Your task to perform on an android device: Open CNN.com Image 0: 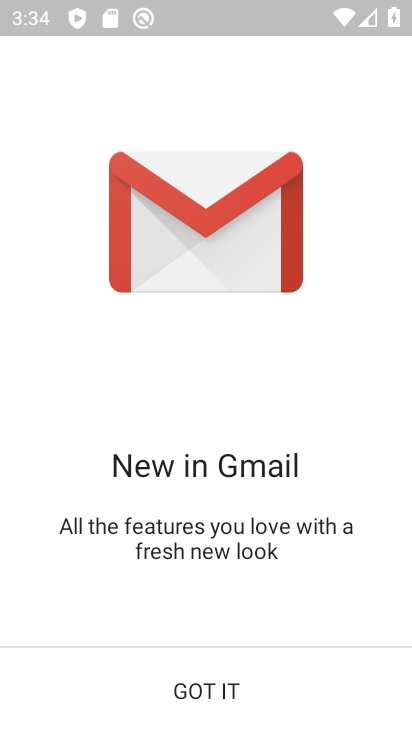
Step 0: press home button
Your task to perform on an android device: Open CNN.com Image 1: 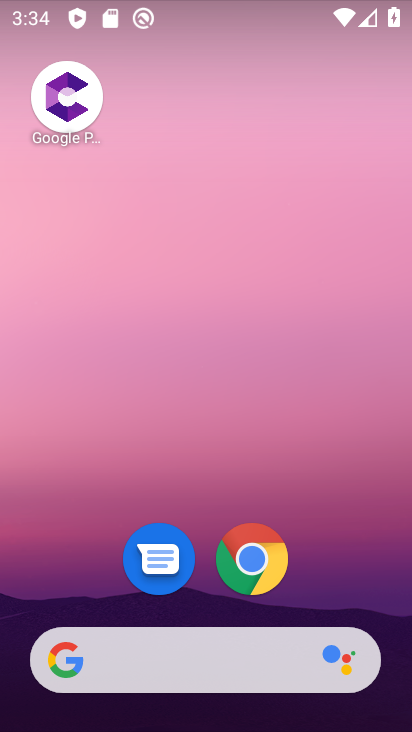
Step 1: click (233, 562)
Your task to perform on an android device: Open CNN.com Image 2: 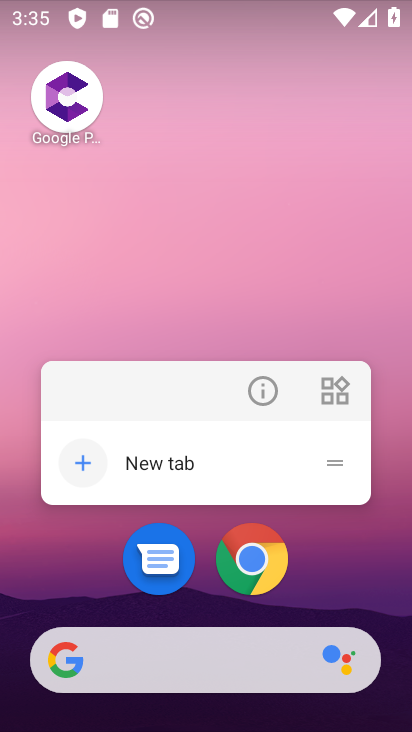
Step 2: drag from (190, 628) to (193, 234)
Your task to perform on an android device: Open CNN.com Image 3: 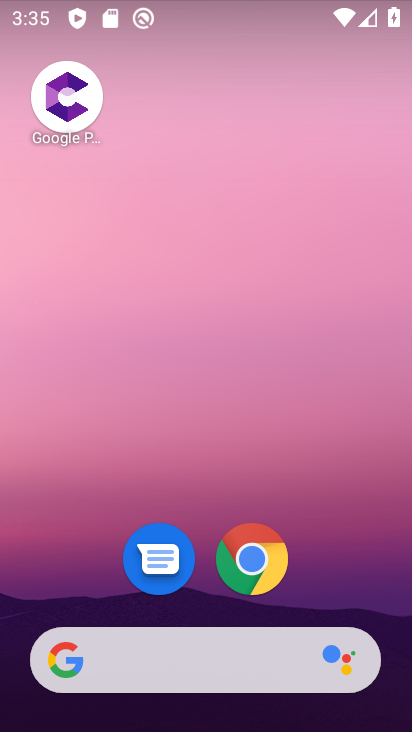
Step 3: drag from (193, 606) to (206, 257)
Your task to perform on an android device: Open CNN.com Image 4: 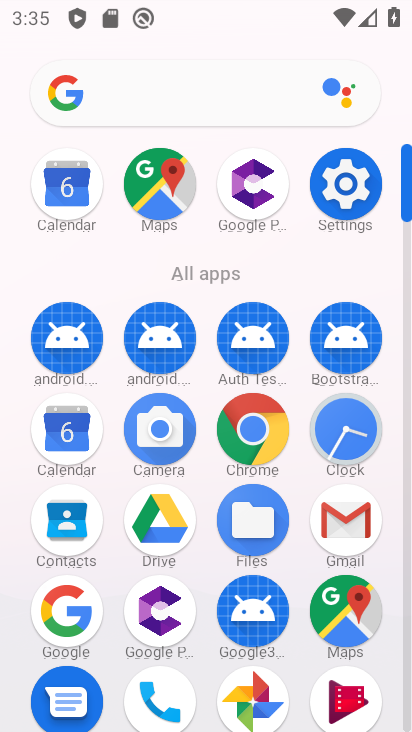
Step 4: click (54, 621)
Your task to perform on an android device: Open CNN.com Image 5: 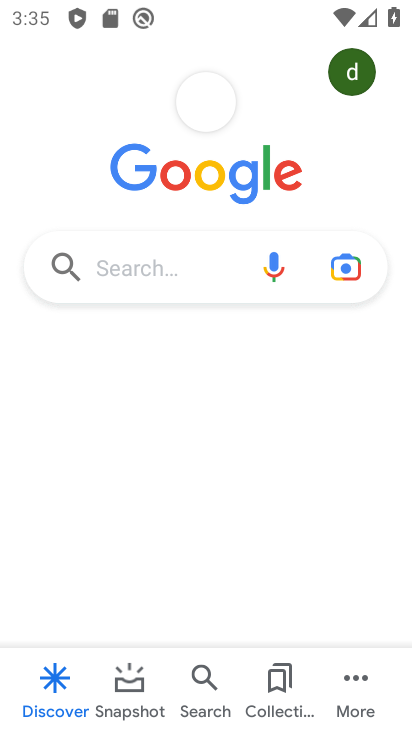
Step 5: click (161, 264)
Your task to perform on an android device: Open CNN.com Image 6: 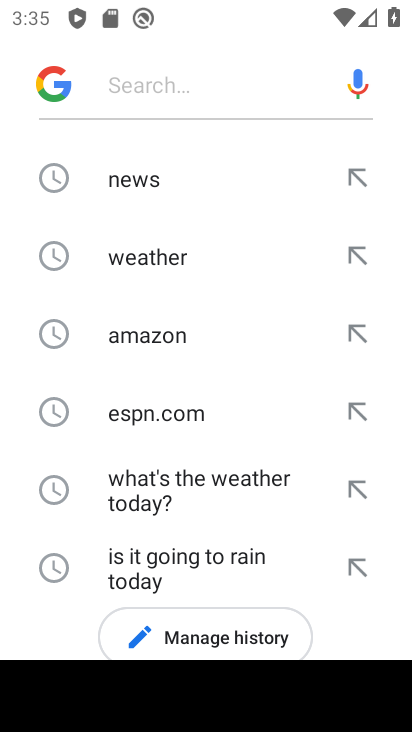
Step 6: type "CNN.com"
Your task to perform on an android device: Open CNN.com Image 7: 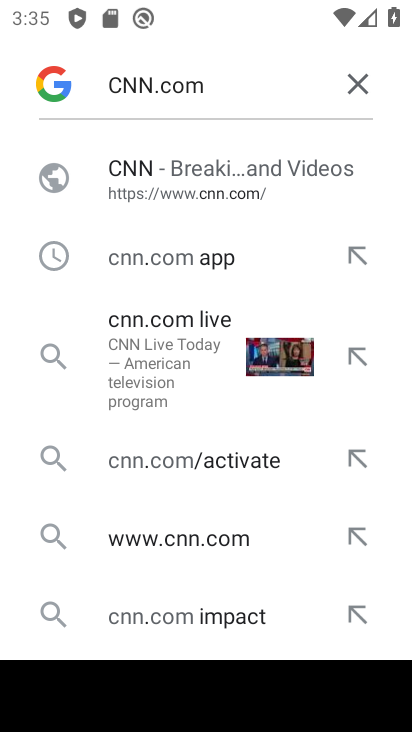
Step 7: click (206, 168)
Your task to perform on an android device: Open CNN.com Image 8: 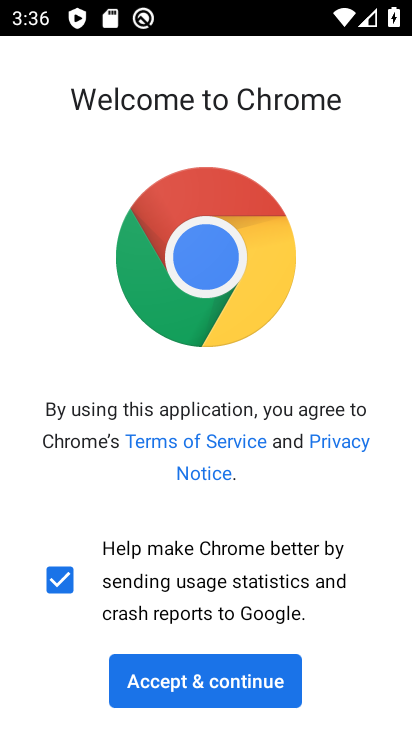
Step 8: click (221, 682)
Your task to perform on an android device: Open CNN.com Image 9: 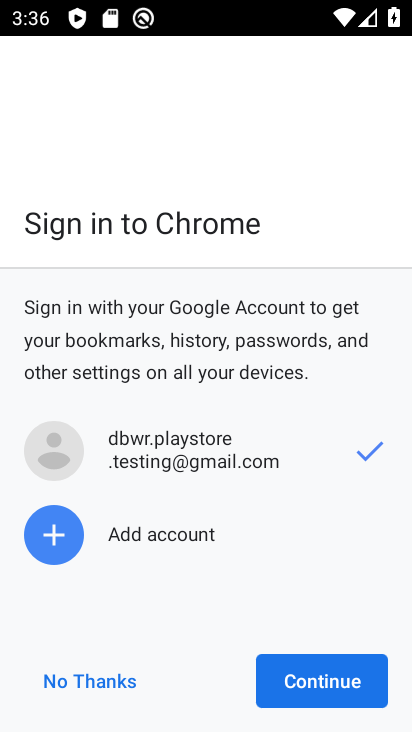
Step 9: click (283, 688)
Your task to perform on an android device: Open CNN.com Image 10: 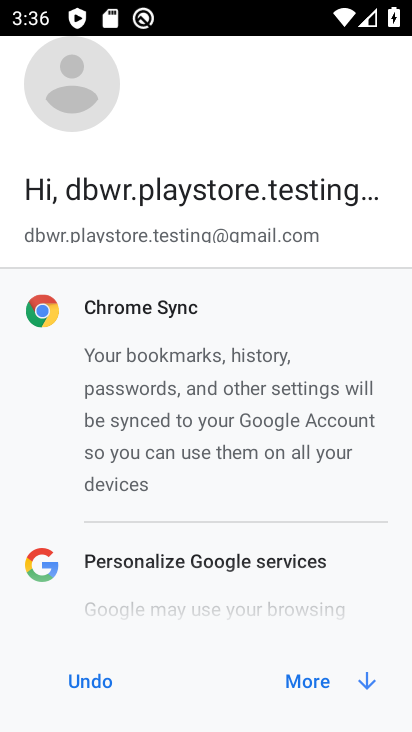
Step 10: click (299, 691)
Your task to perform on an android device: Open CNN.com Image 11: 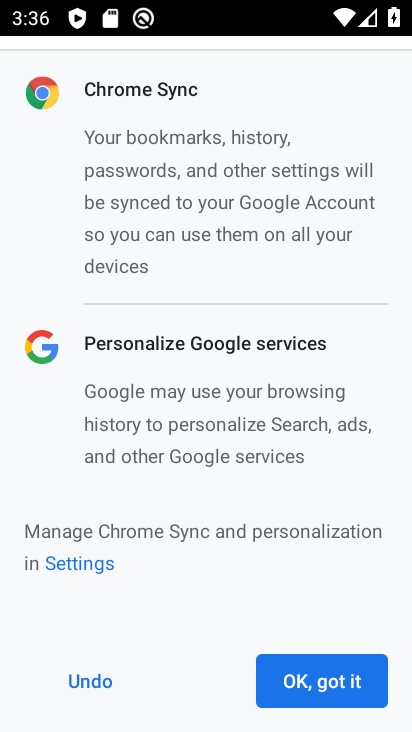
Step 11: click (299, 691)
Your task to perform on an android device: Open CNN.com Image 12: 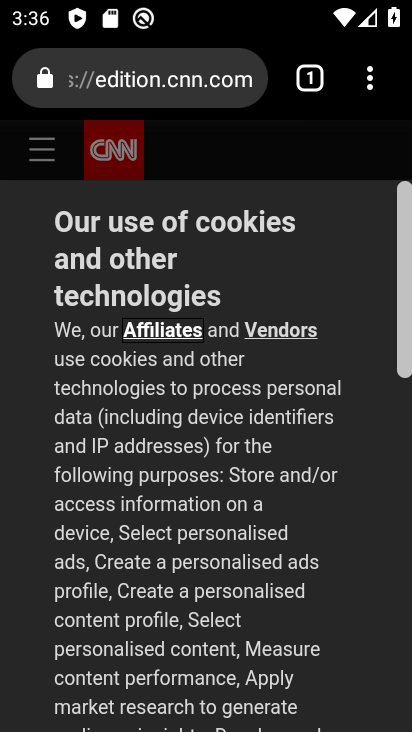
Step 12: task complete